Your task to perform on an android device: toggle wifi Image 0: 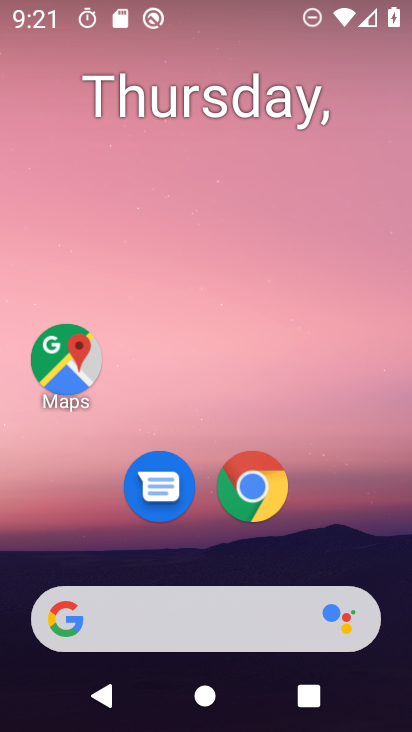
Step 0: drag from (168, 6) to (254, 479)
Your task to perform on an android device: toggle wifi Image 1: 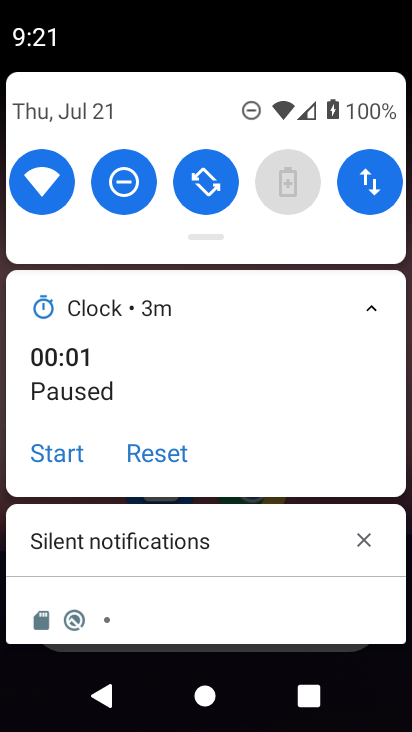
Step 1: click (49, 191)
Your task to perform on an android device: toggle wifi Image 2: 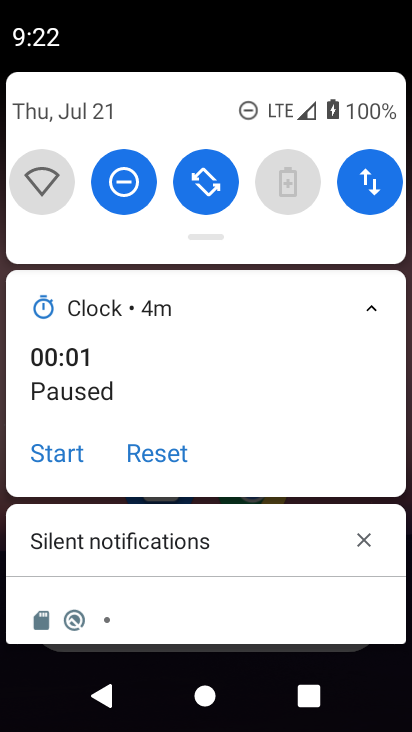
Step 2: task complete